Your task to perform on an android device: open a bookmark in the chrome app Image 0: 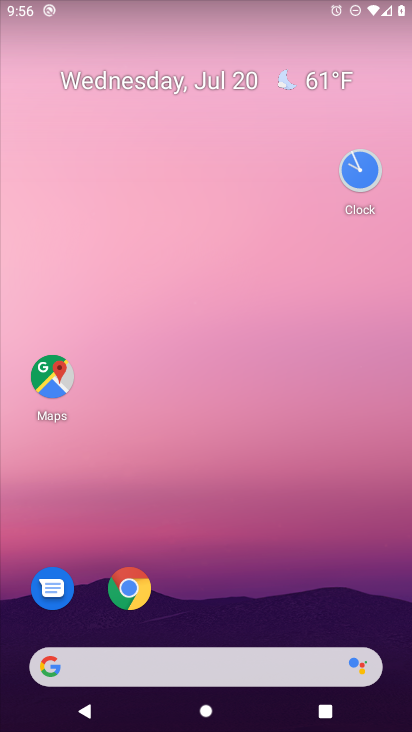
Step 0: drag from (50, 685) to (406, 3)
Your task to perform on an android device: open a bookmark in the chrome app Image 1: 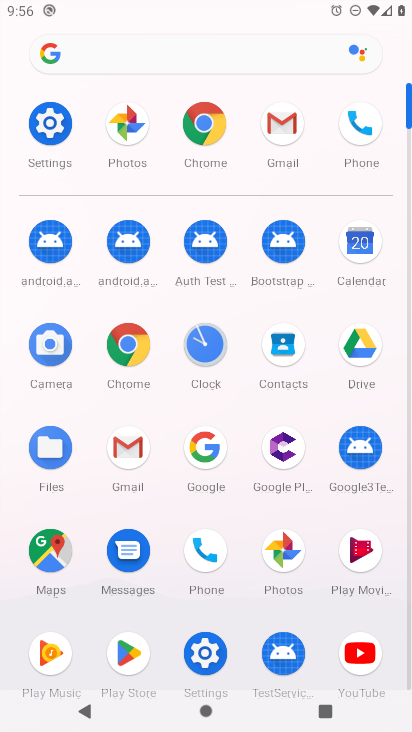
Step 1: click (136, 360)
Your task to perform on an android device: open a bookmark in the chrome app Image 2: 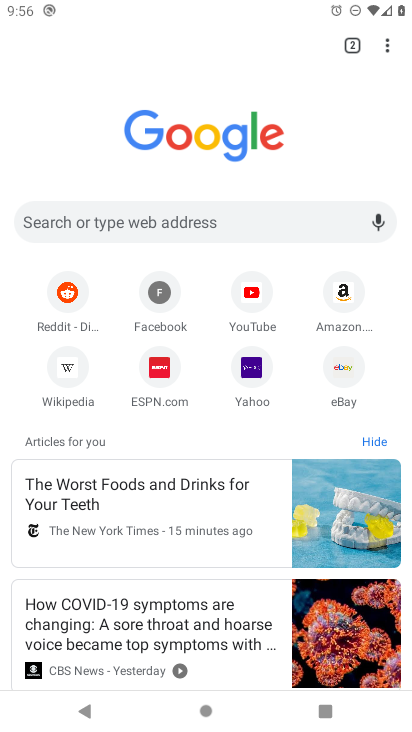
Step 2: click (384, 43)
Your task to perform on an android device: open a bookmark in the chrome app Image 3: 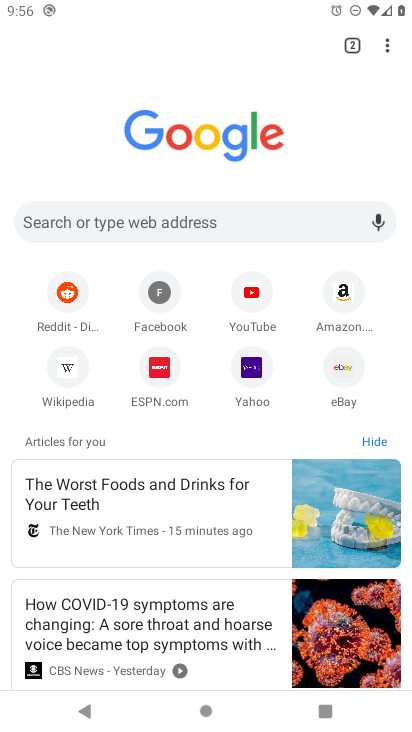
Step 3: click (392, 46)
Your task to perform on an android device: open a bookmark in the chrome app Image 4: 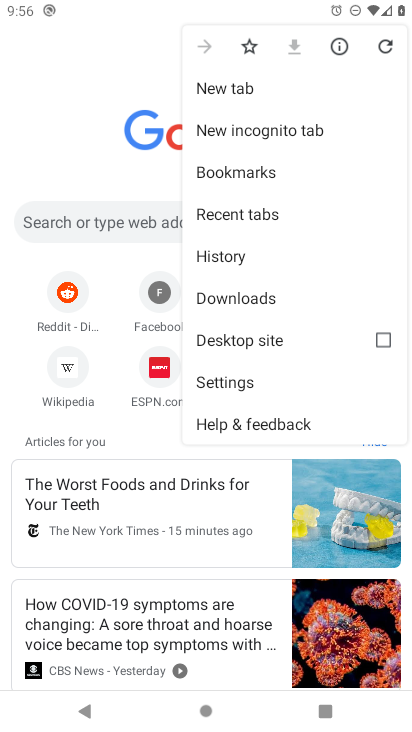
Step 4: click (244, 169)
Your task to perform on an android device: open a bookmark in the chrome app Image 5: 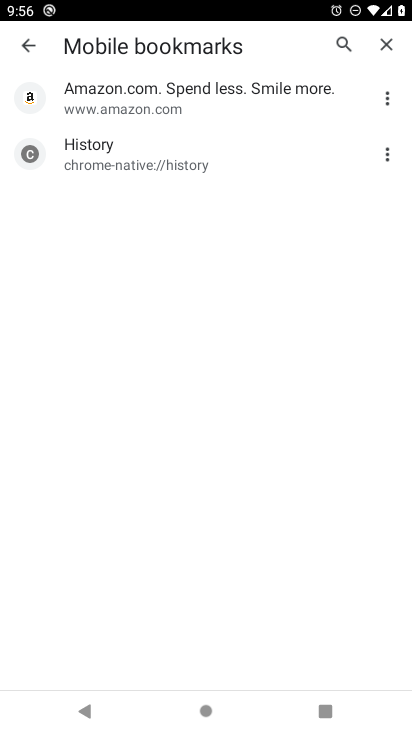
Step 5: task complete